Your task to perform on an android device: When is my next meeting? Image 0: 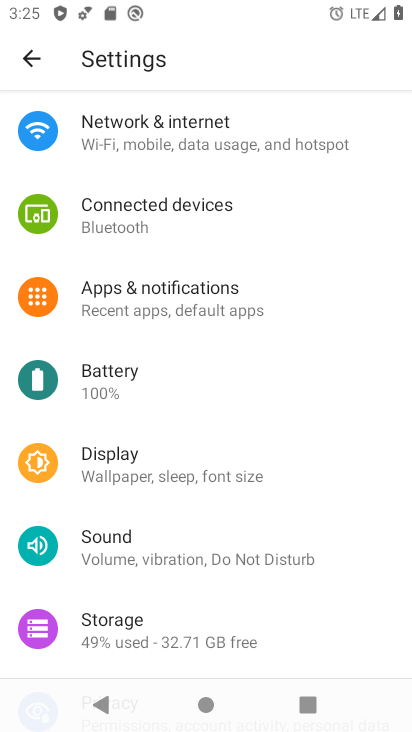
Step 0: press home button
Your task to perform on an android device: When is my next meeting? Image 1: 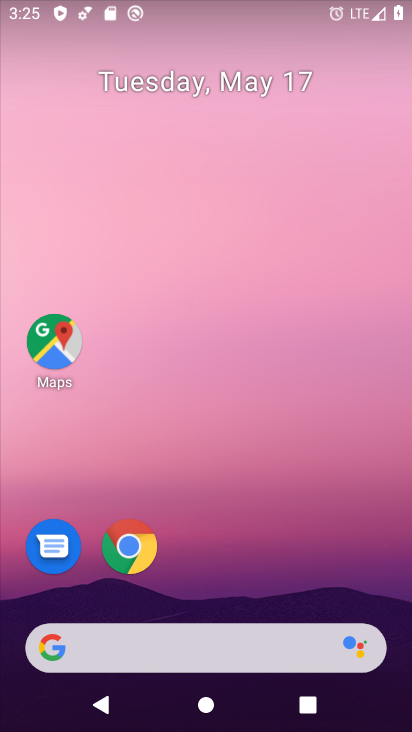
Step 1: drag from (272, 584) to (259, 37)
Your task to perform on an android device: When is my next meeting? Image 2: 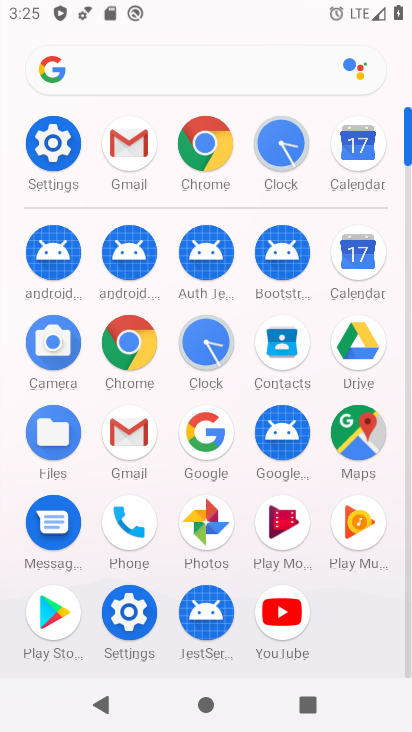
Step 2: click (348, 245)
Your task to perform on an android device: When is my next meeting? Image 3: 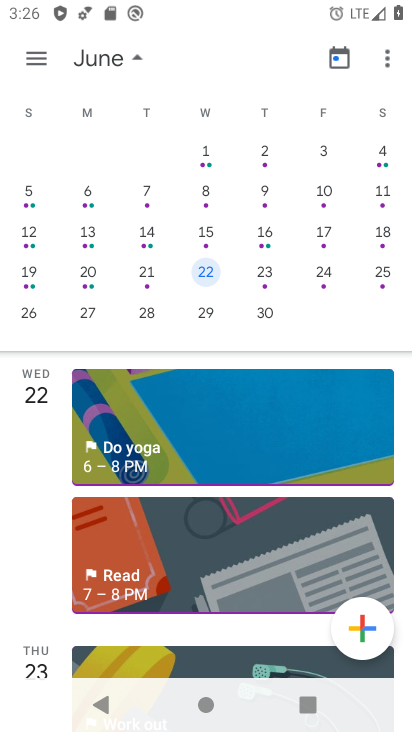
Step 3: click (311, 228)
Your task to perform on an android device: When is my next meeting? Image 4: 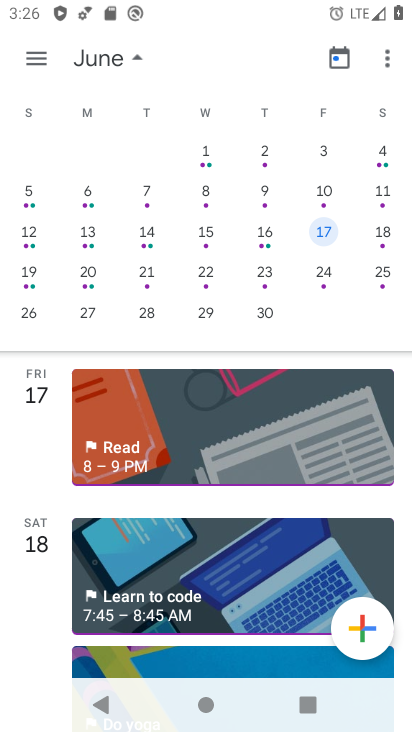
Step 4: click (138, 56)
Your task to perform on an android device: When is my next meeting? Image 5: 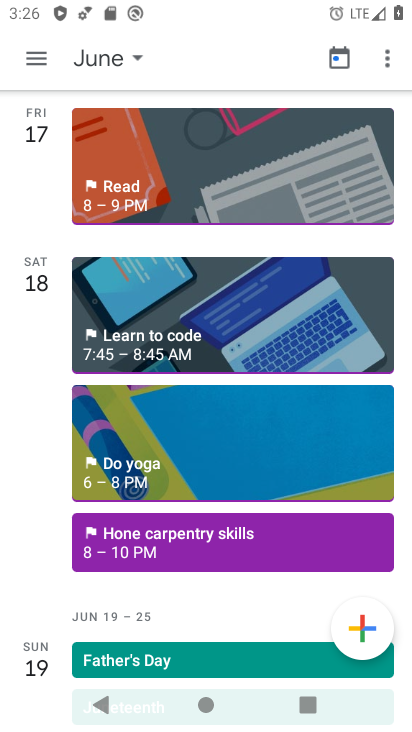
Step 5: click (138, 56)
Your task to perform on an android device: When is my next meeting? Image 6: 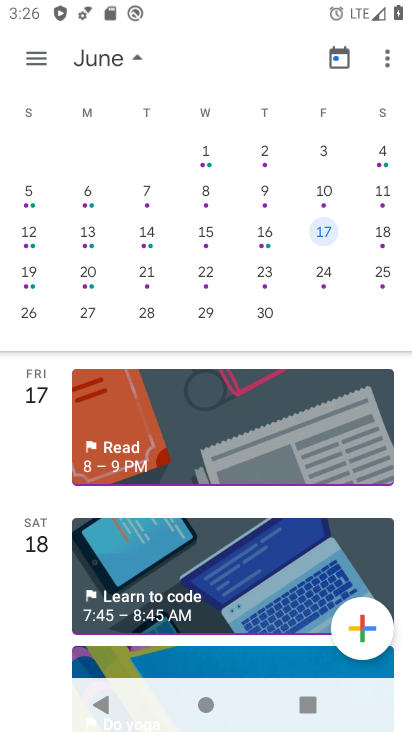
Step 6: drag from (29, 152) to (409, 157)
Your task to perform on an android device: When is my next meeting? Image 7: 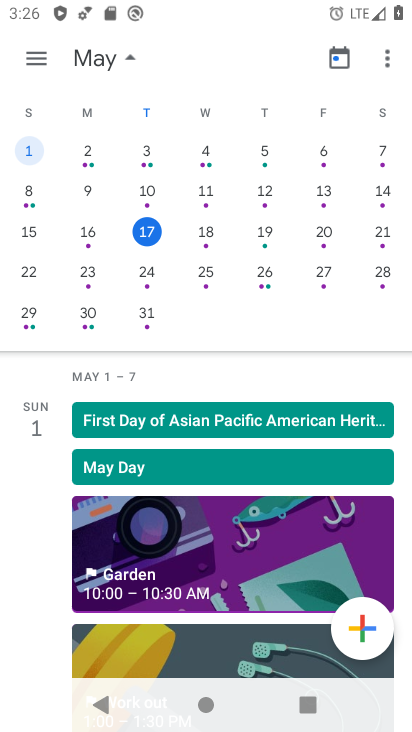
Step 7: click (152, 48)
Your task to perform on an android device: When is my next meeting? Image 8: 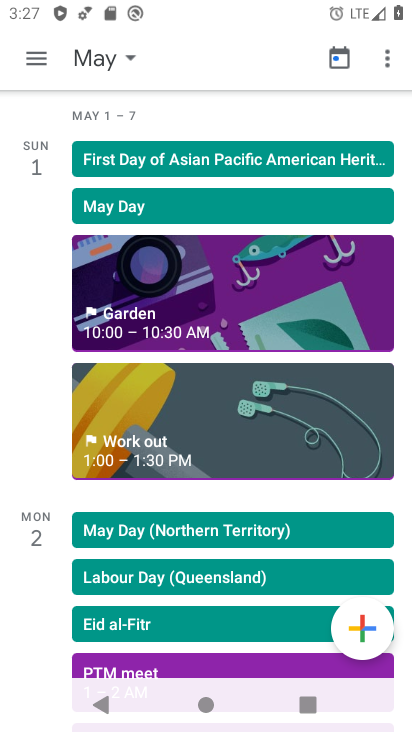
Step 8: task complete